Your task to perform on an android device: check storage Image 0: 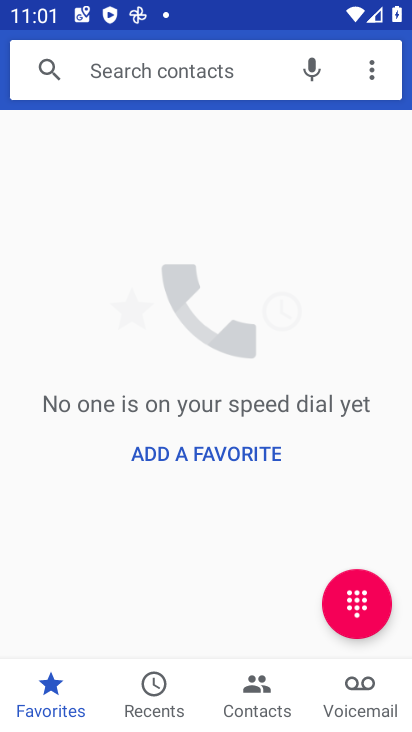
Step 0: press home button
Your task to perform on an android device: check storage Image 1: 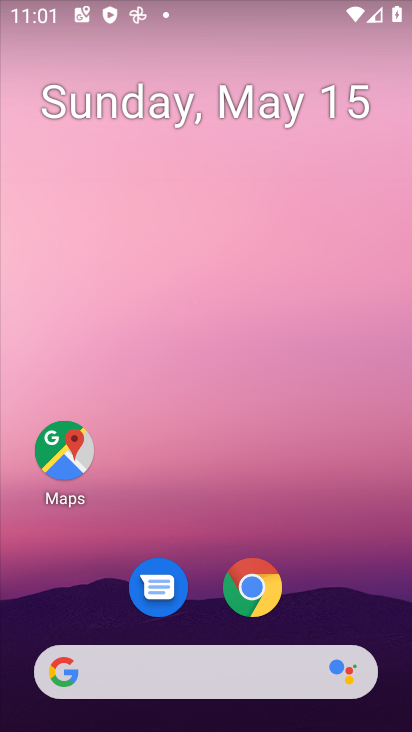
Step 1: drag from (387, 647) to (222, 77)
Your task to perform on an android device: check storage Image 2: 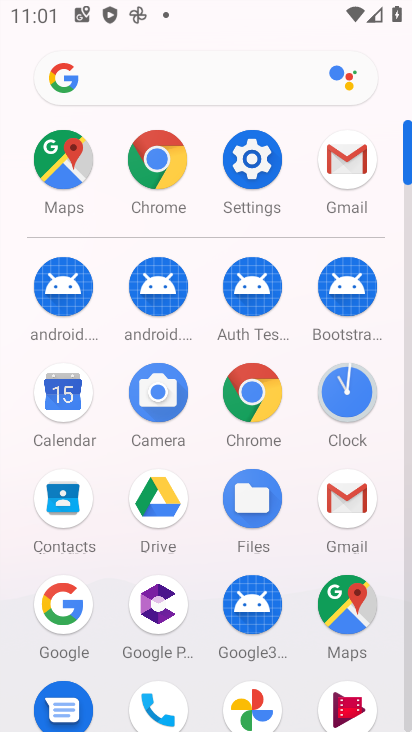
Step 2: click (256, 179)
Your task to perform on an android device: check storage Image 3: 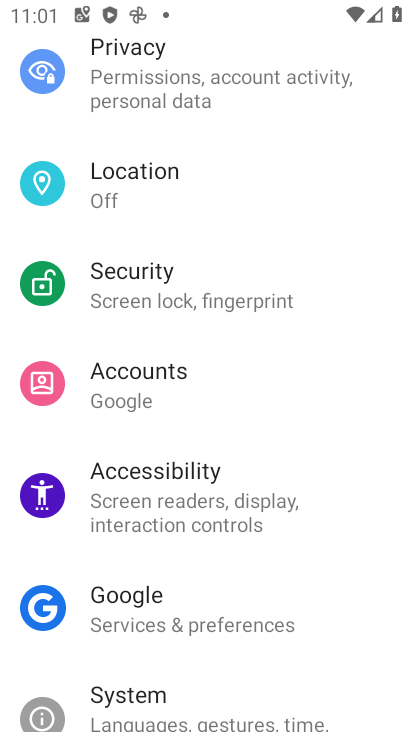
Step 3: drag from (211, 180) to (211, 655)
Your task to perform on an android device: check storage Image 4: 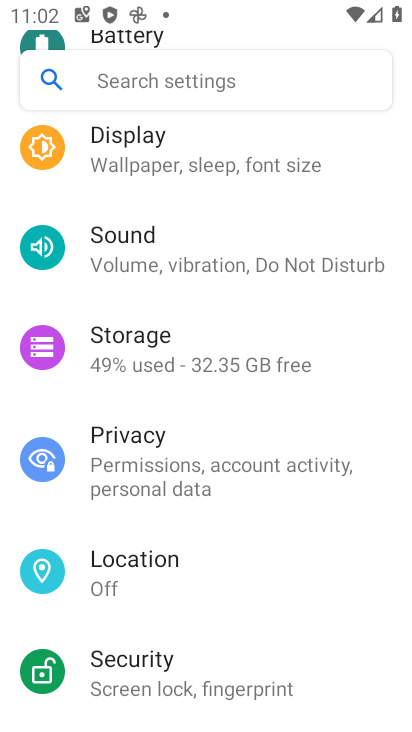
Step 4: click (194, 357)
Your task to perform on an android device: check storage Image 5: 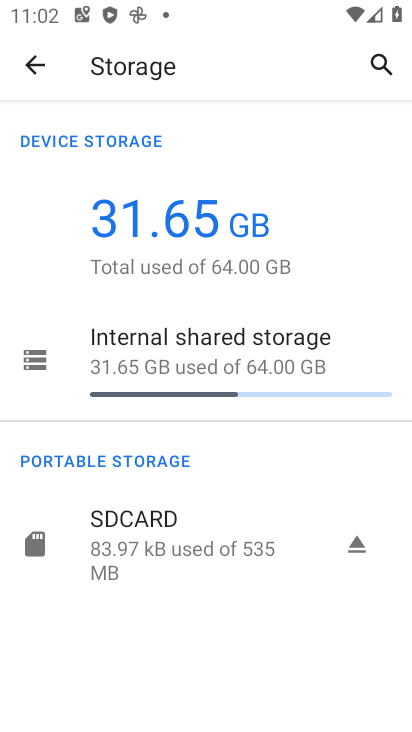
Step 5: click (177, 341)
Your task to perform on an android device: check storage Image 6: 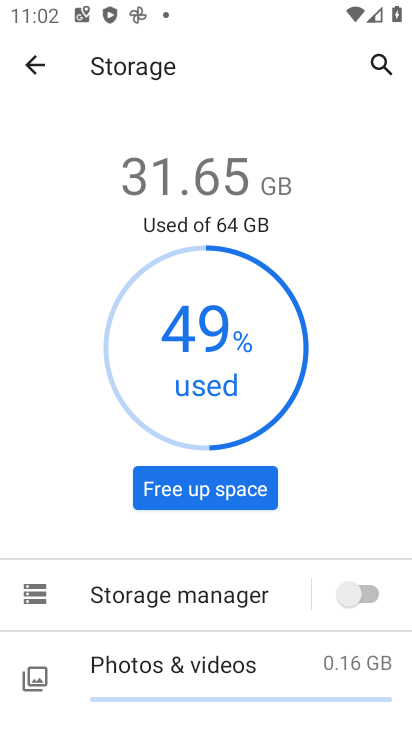
Step 6: task complete